Your task to perform on an android device: Open privacy settings Image 0: 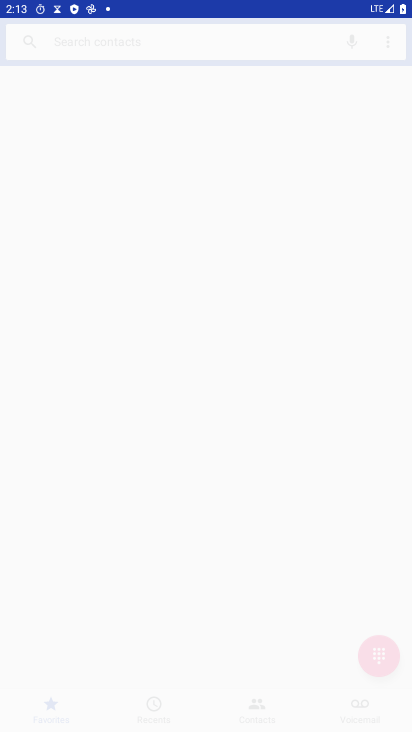
Step 0: drag from (315, 553) to (385, 573)
Your task to perform on an android device: Open privacy settings Image 1: 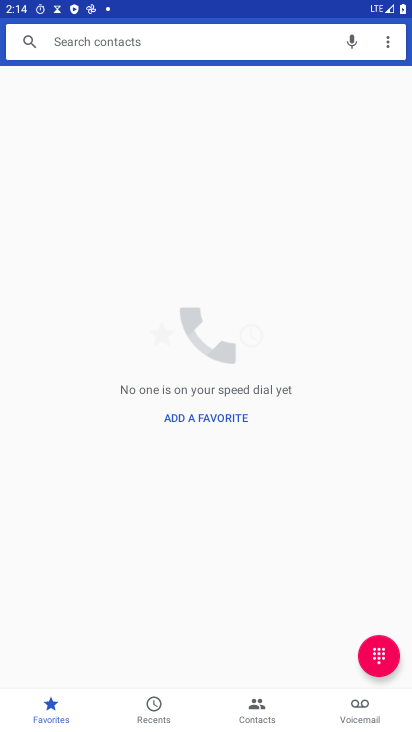
Step 1: press home button
Your task to perform on an android device: Open privacy settings Image 2: 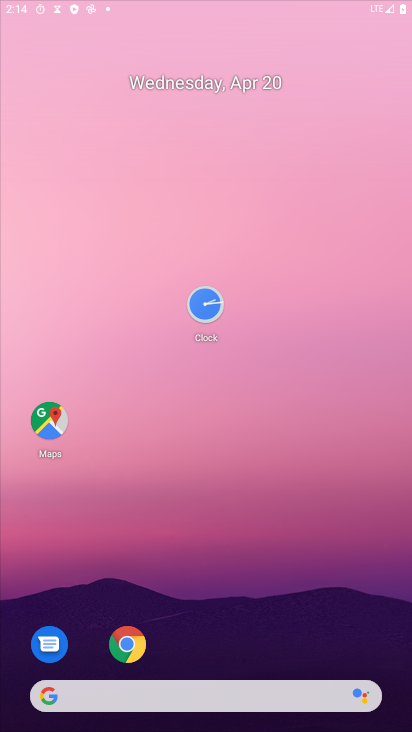
Step 2: drag from (299, 678) to (299, 33)
Your task to perform on an android device: Open privacy settings Image 3: 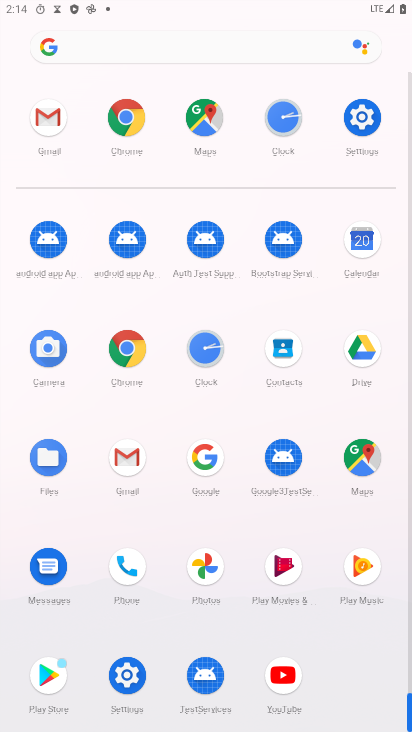
Step 3: click (127, 674)
Your task to perform on an android device: Open privacy settings Image 4: 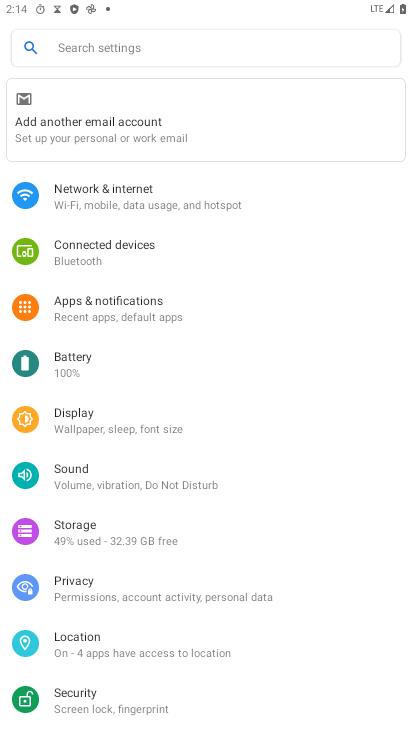
Step 4: click (120, 616)
Your task to perform on an android device: Open privacy settings Image 5: 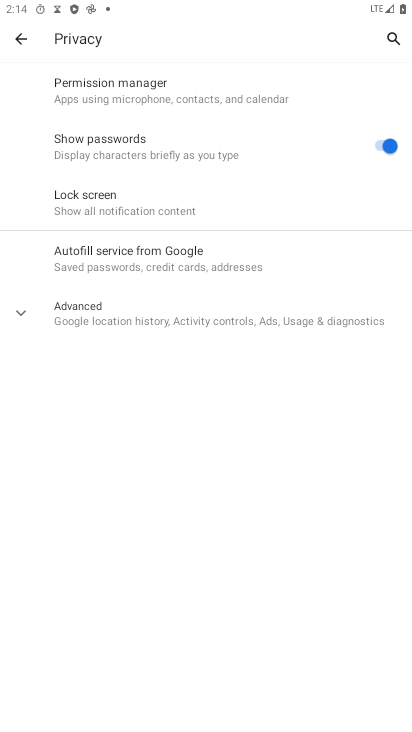
Step 5: task complete